Your task to perform on an android device: Clear the shopping cart on bestbuy. Search for alienware area 51 on bestbuy, select the first entry, add it to the cart, then select checkout. Image 0: 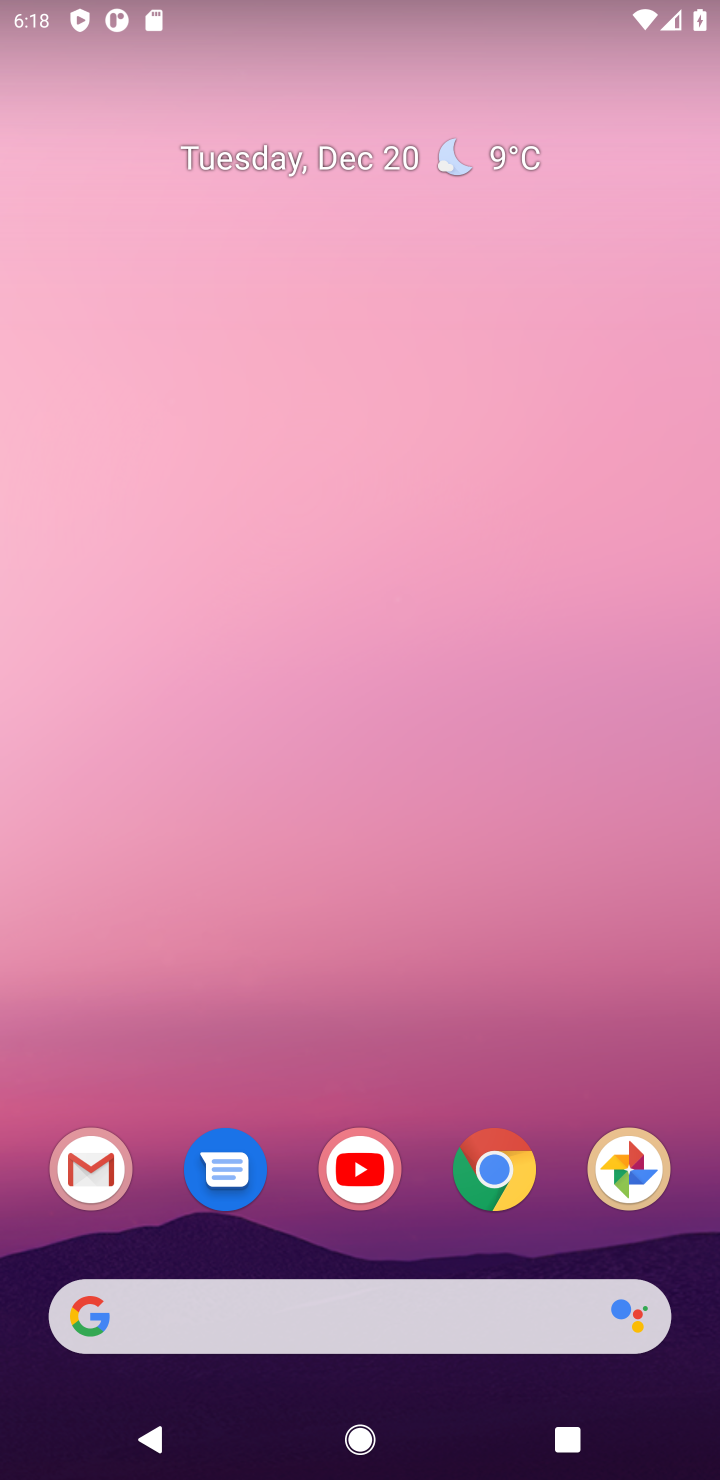
Step 0: click (491, 1196)
Your task to perform on an android device: Clear the shopping cart on bestbuy. Search for alienware area 51 on bestbuy, select the first entry, add it to the cart, then select checkout. Image 1: 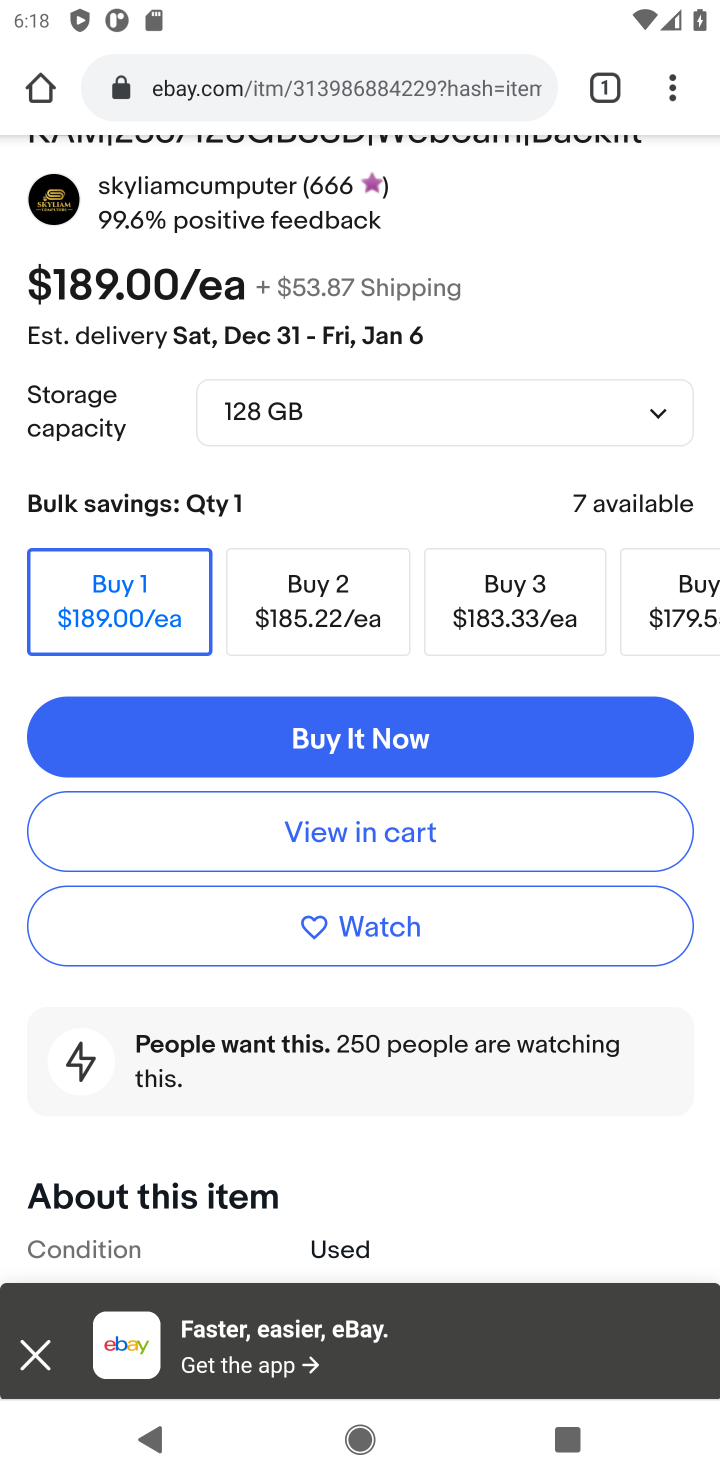
Step 1: click (281, 91)
Your task to perform on an android device: Clear the shopping cart on bestbuy. Search for alienware area 51 on bestbuy, select the first entry, add it to the cart, then select checkout. Image 2: 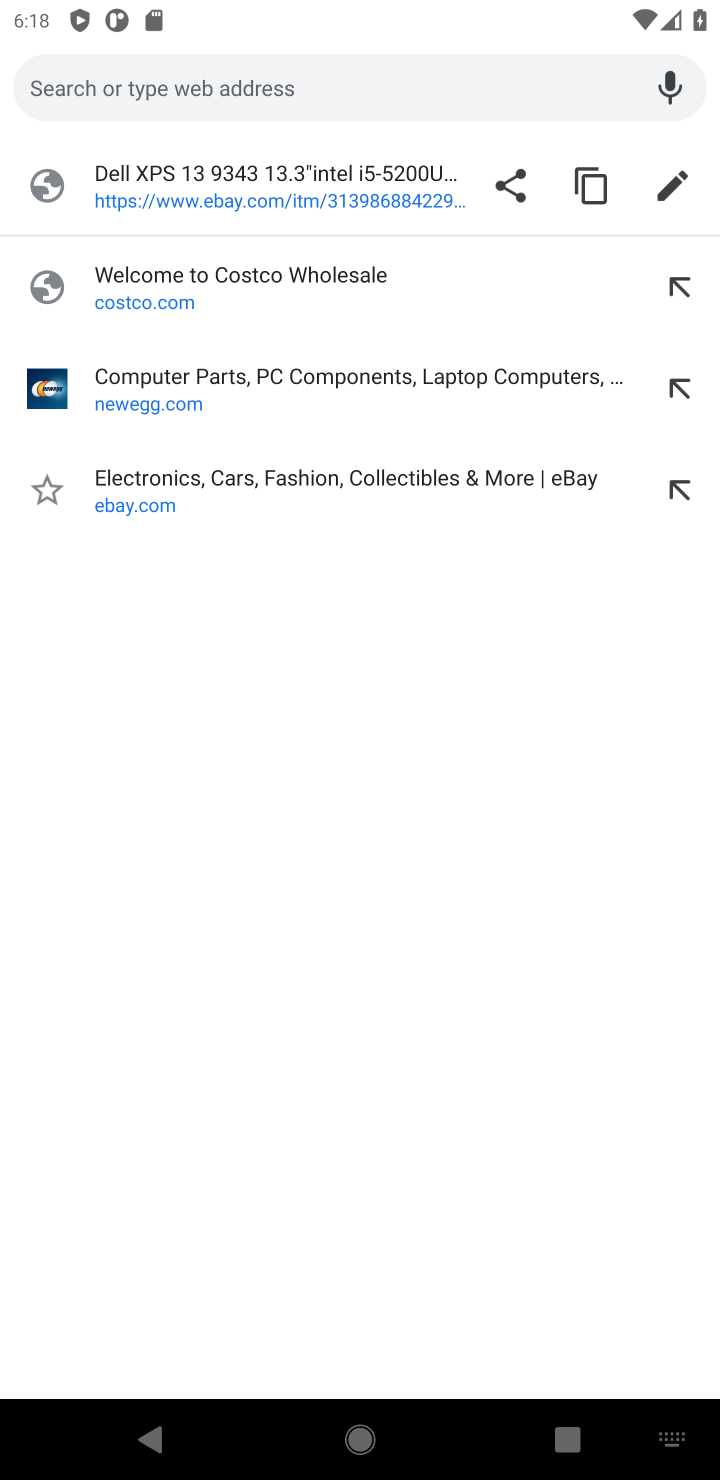
Step 2: type "bestbuy"
Your task to perform on an android device: Clear the shopping cart on bestbuy. Search for alienware area 51 on bestbuy, select the first entry, add it to the cart, then select checkout. Image 3: 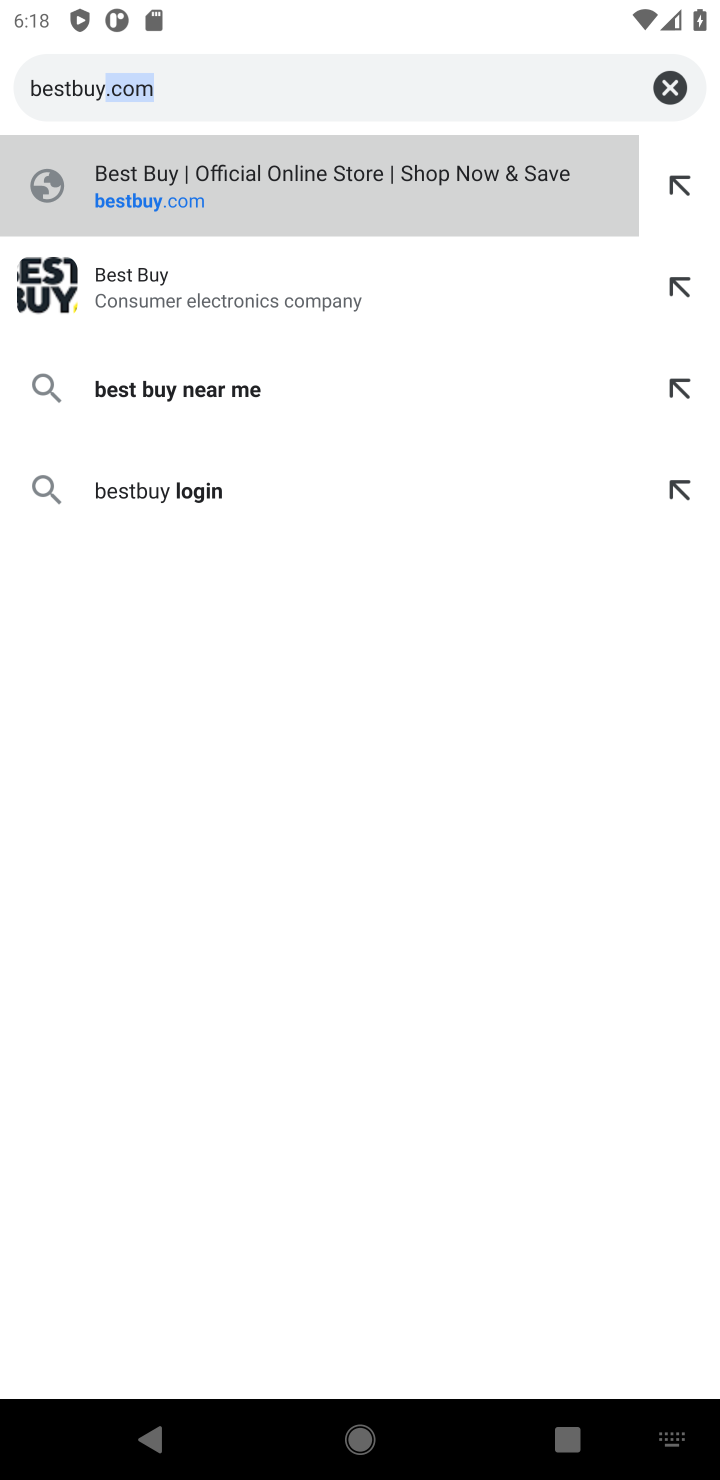
Step 3: click (66, 207)
Your task to perform on an android device: Clear the shopping cart on bestbuy. Search for alienware area 51 on bestbuy, select the first entry, add it to the cart, then select checkout. Image 4: 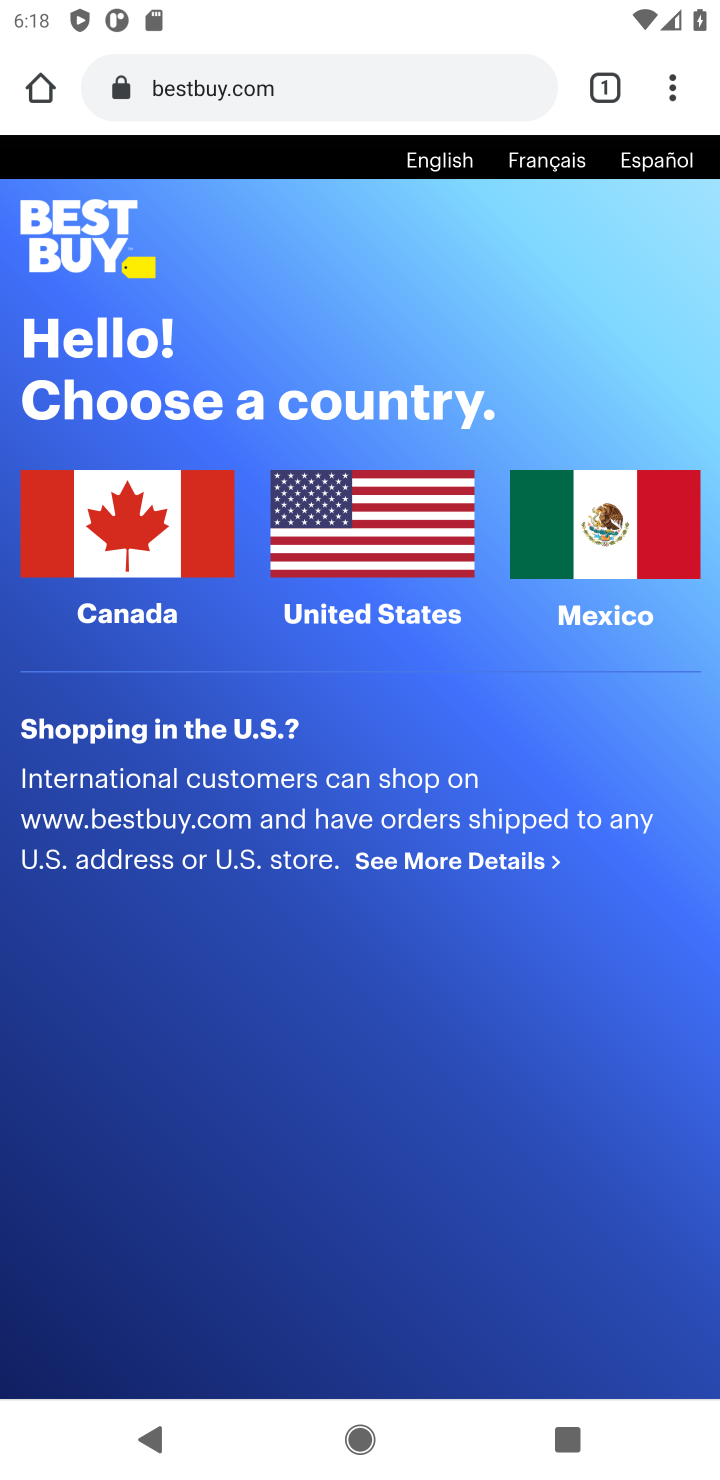
Step 4: click (174, 503)
Your task to perform on an android device: Clear the shopping cart on bestbuy. Search for alienware area 51 on bestbuy, select the first entry, add it to the cart, then select checkout. Image 5: 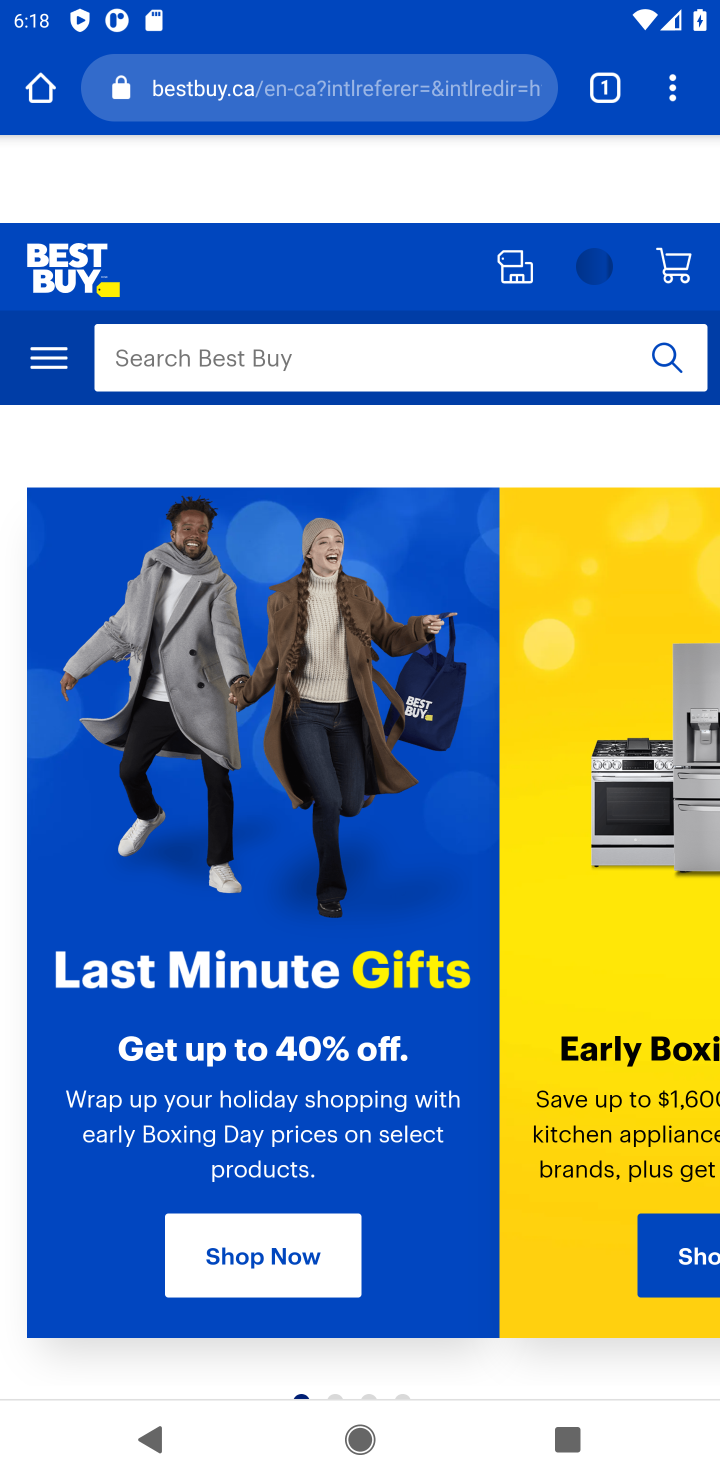
Step 5: click (286, 368)
Your task to perform on an android device: Clear the shopping cart on bestbuy. Search for alienware area 51 on bestbuy, select the first entry, add it to the cart, then select checkout. Image 6: 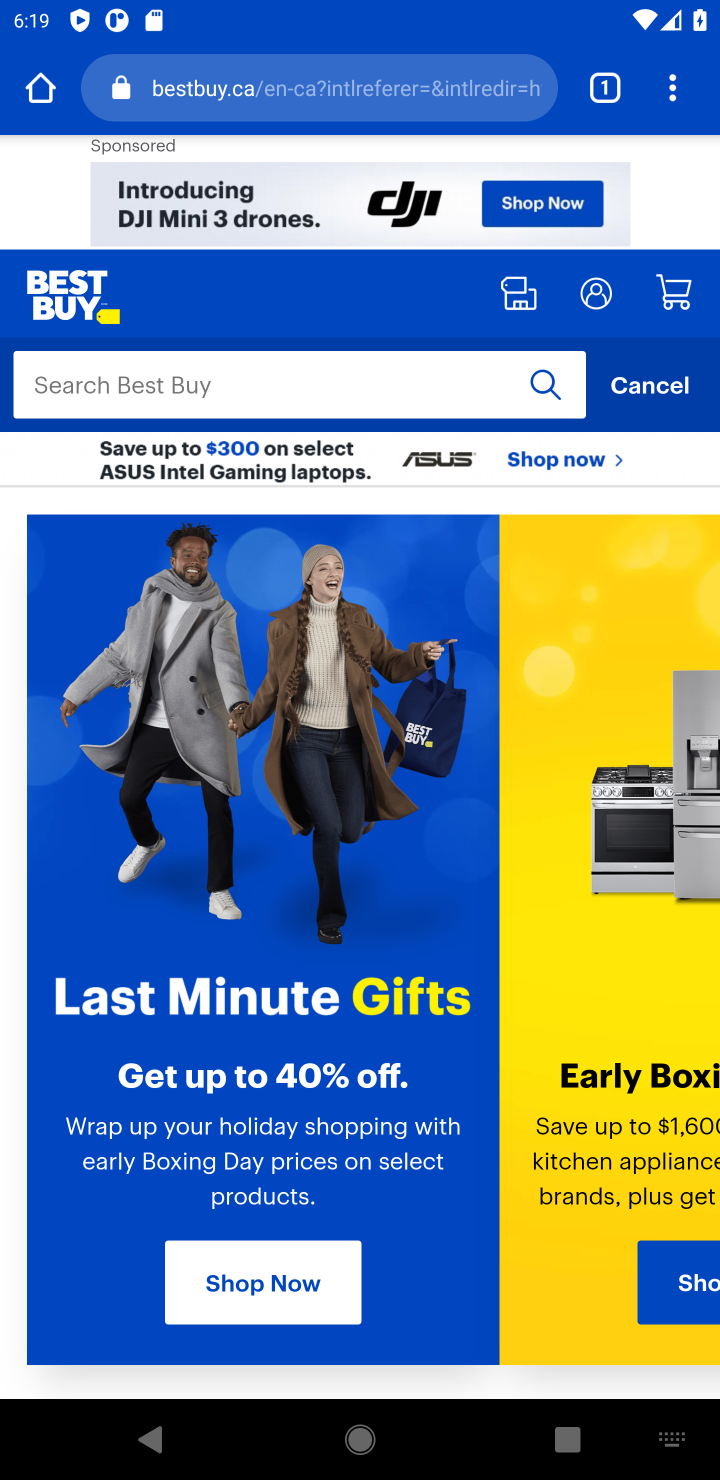
Step 6: type "alienware area 51"
Your task to perform on an android device: Clear the shopping cart on bestbuy. Search for alienware area 51 on bestbuy, select the first entry, add it to the cart, then select checkout. Image 7: 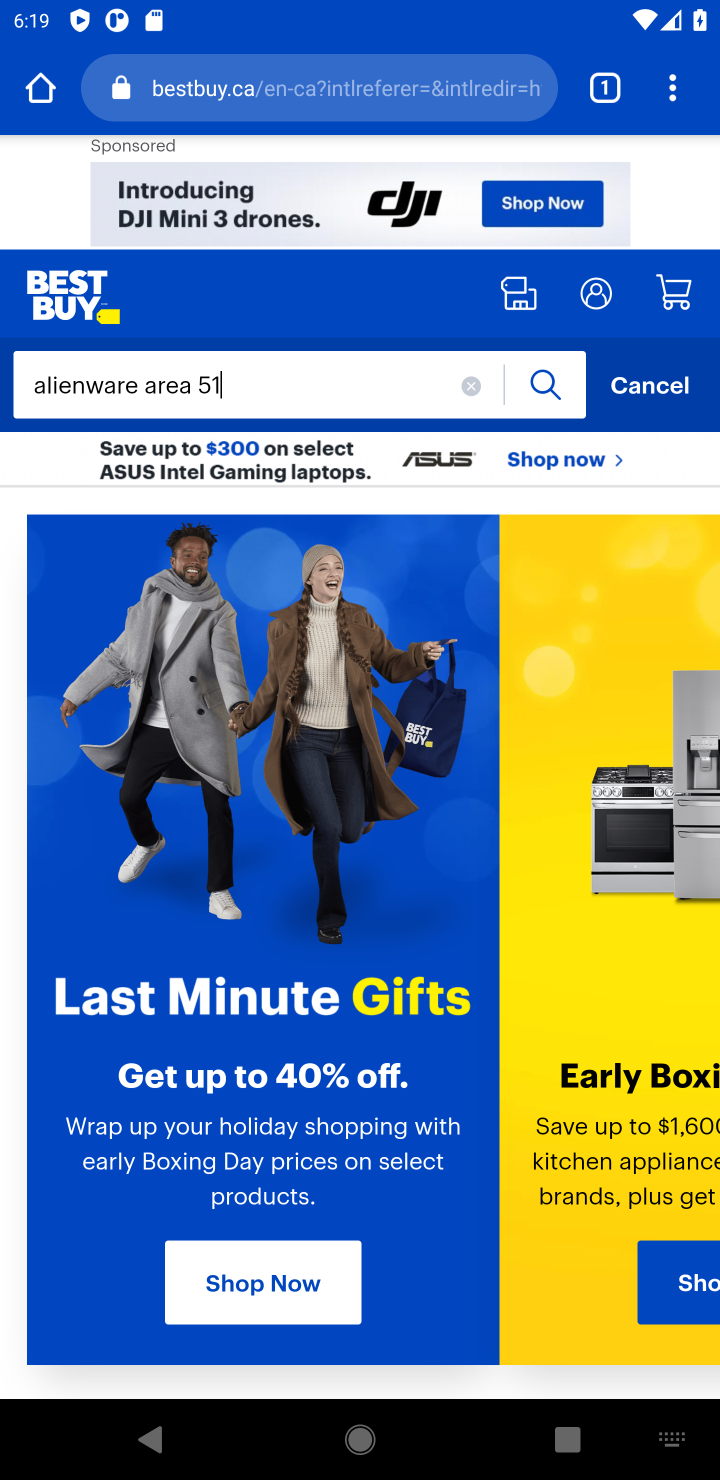
Step 7: task complete